Your task to perform on an android device: What's the weather? Image 0: 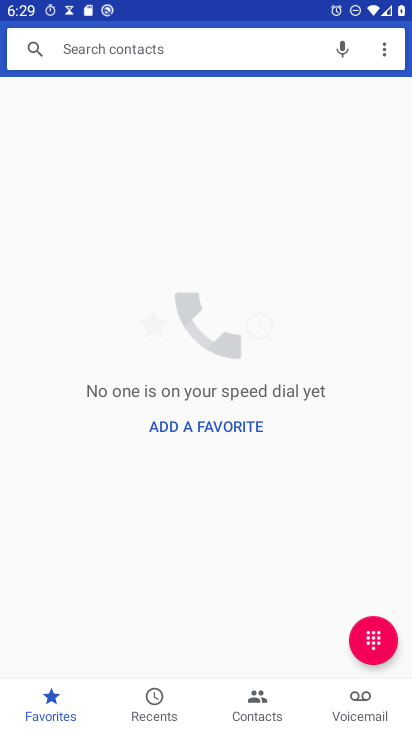
Step 0: press home button
Your task to perform on an android device: What's the weather? Image 1: 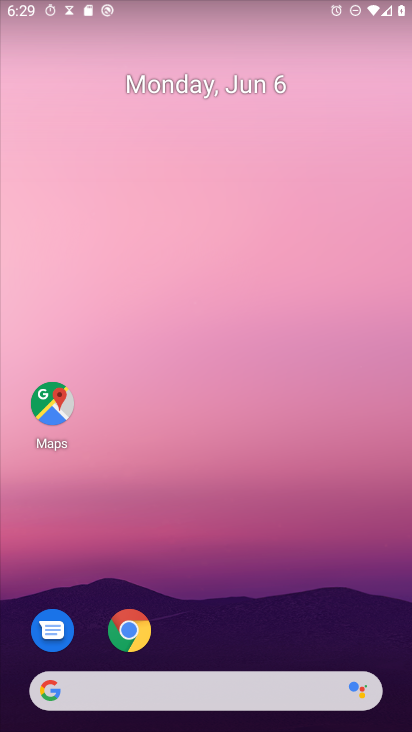
Step 1: drag from (278, 574) to (135, 95)
Your task to perform on an android device: What's the weather? Image 2: 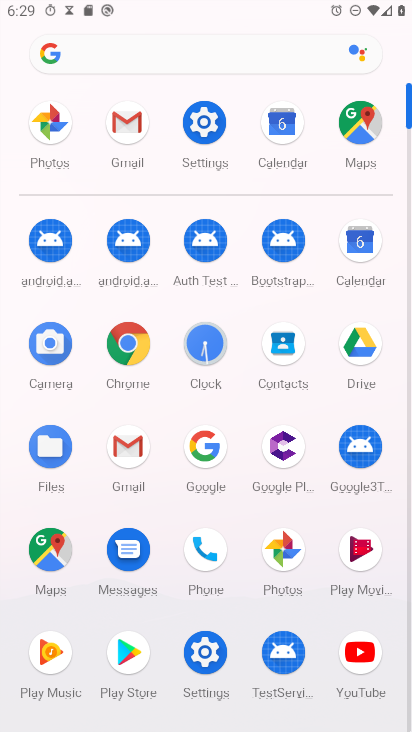
Step 2: click (206, 445)
Your task to perform on an android device: What's the weather? Image 3: 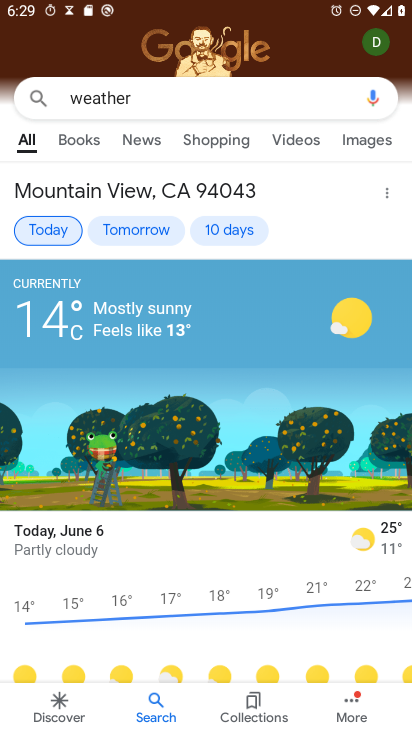
Step 3: task complete